Your task to perform on an android device: turn off smart reply in the gmail app Image 0: 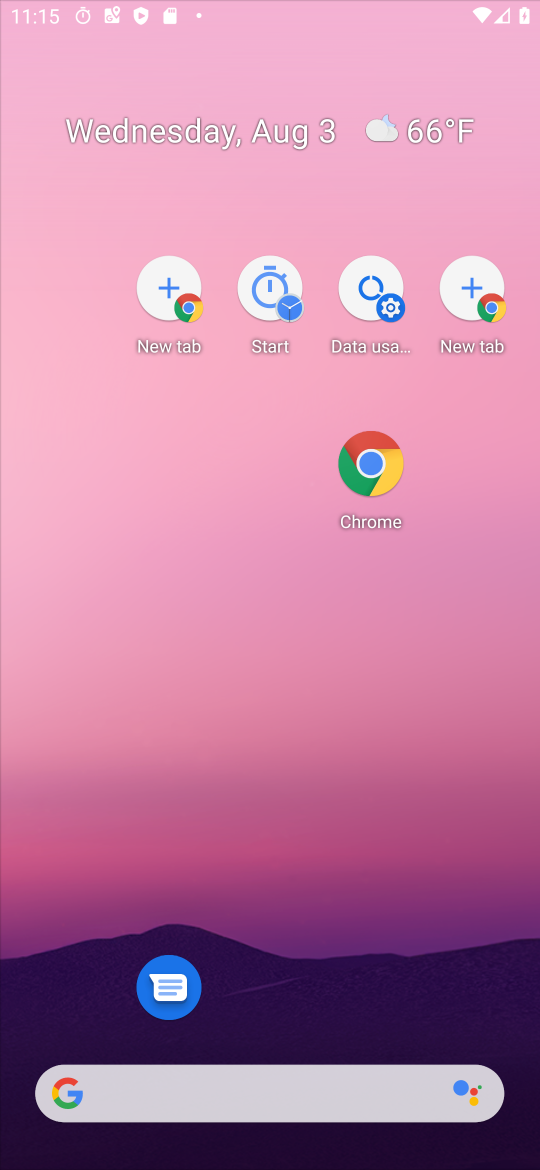
Step 0: press back button
Your task to perform on an android device: turn off smart reply in the gmail app Image 1: 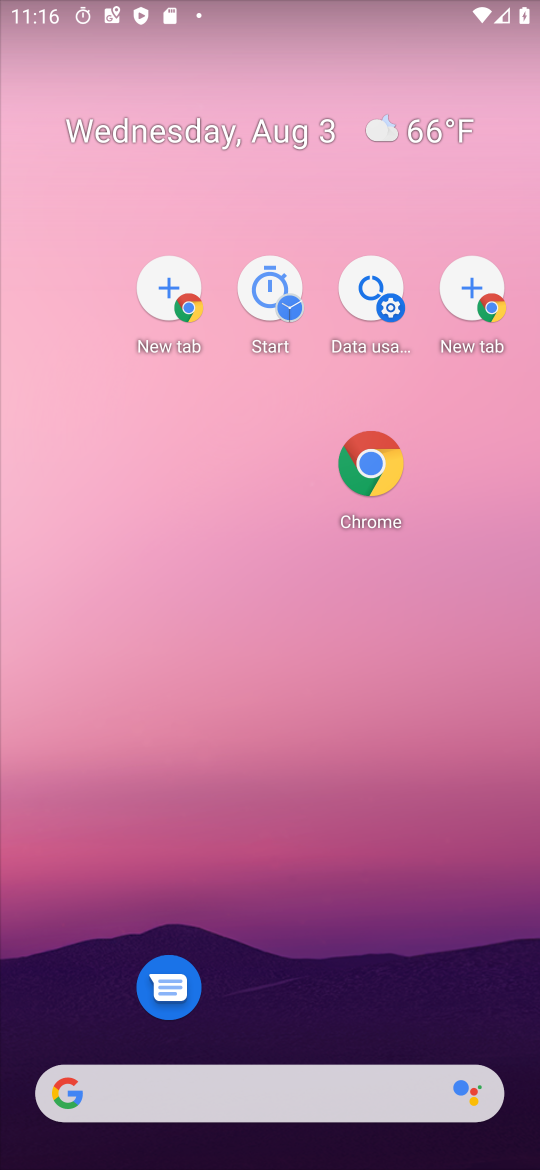
Step 1: drag from (307, 1045) to (126, 320)
Your task to perform on an android device: turn off smart reply in the gmail app Image 2: 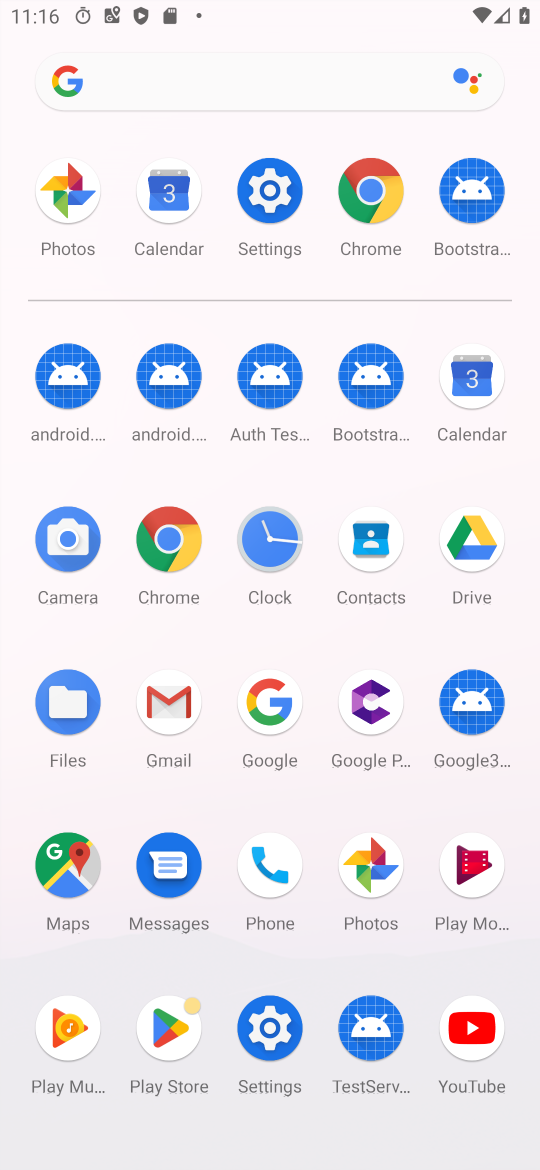
Step 2: click (127, 698)
Your task to perform on an android device: turn off smart reply in the gmail app Image 3: 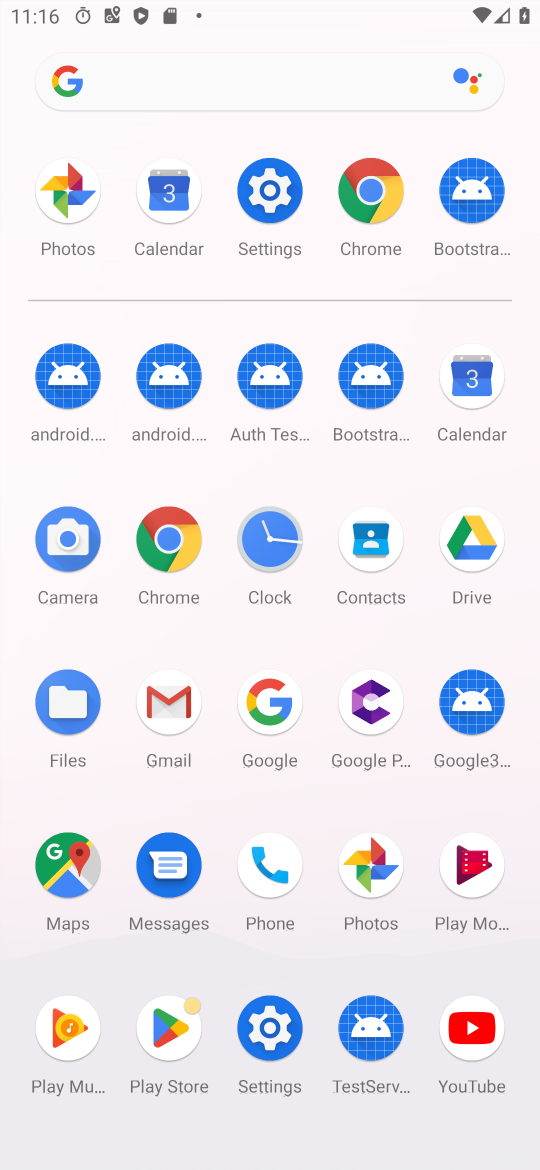
Step 3: click (138, 704)
Your task to perform on an android device: turn off smart reply in the gmail app Image 4: 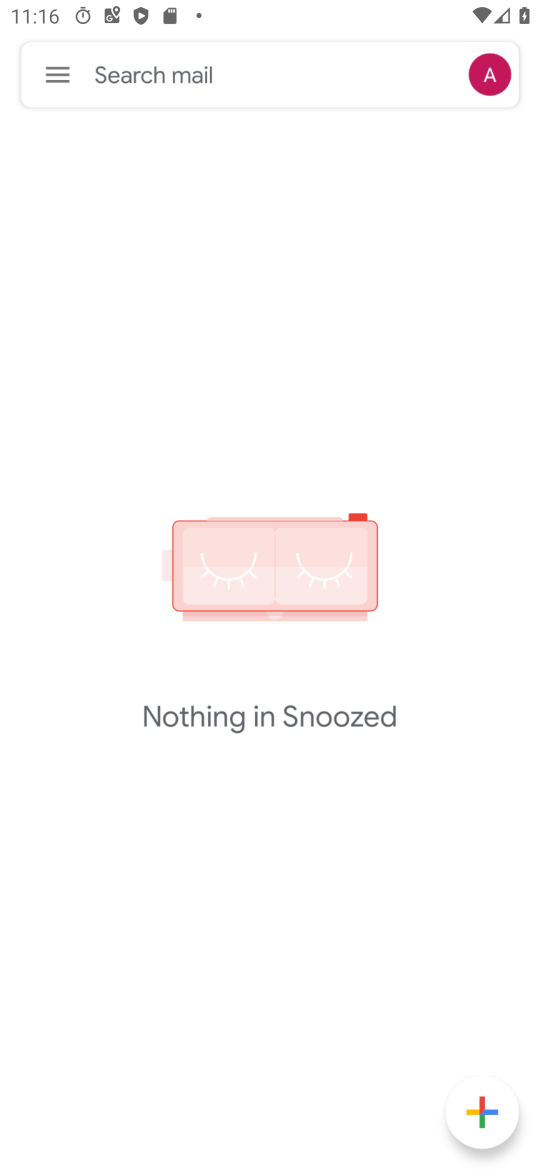
Step 4: click (156, 718)
Your task to perform on an android device: turn off smart reply in the gmail app Image 5: 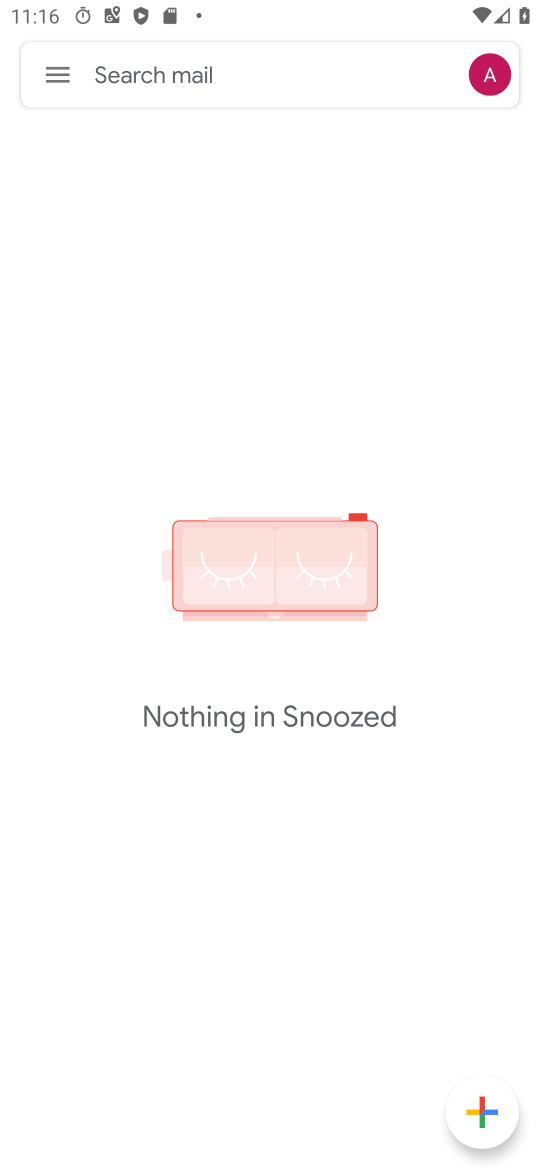
Step 5: click (52, 89)
Your task to perform on an android device: turn off smart reply in the gmail app Image 6: 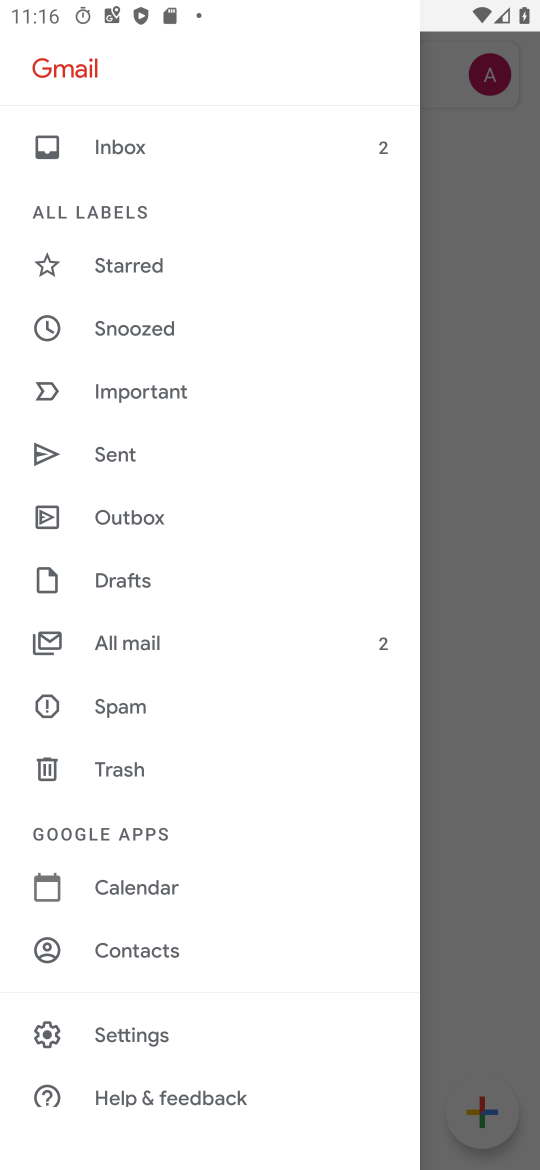
Step 6: click (114, 1031)
Your task to perform on an android device: turn off smart reply in the gmail app Image 7: 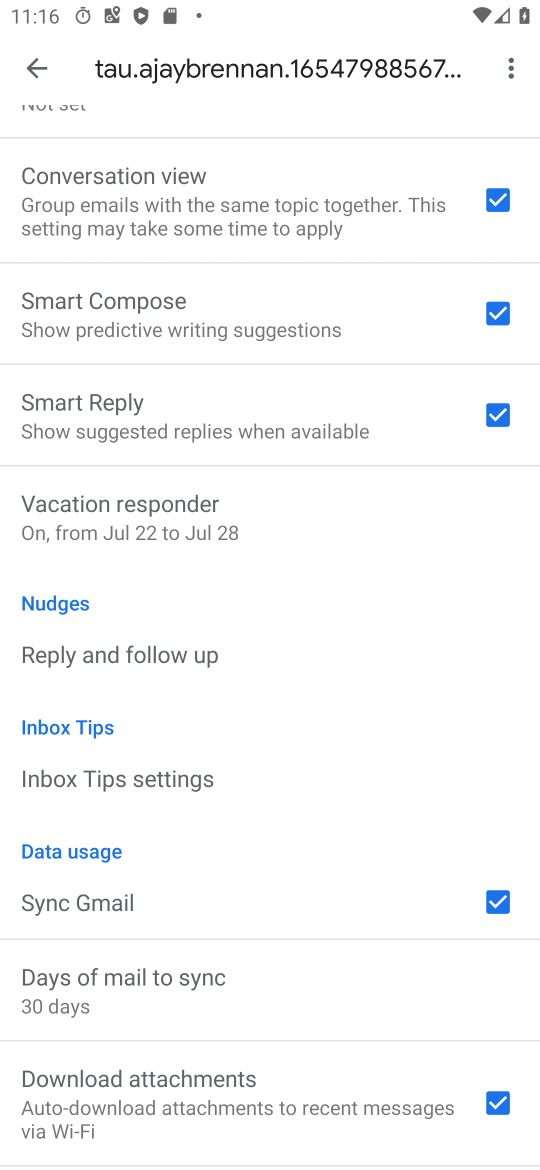
Step 7: click (492, 413)
Your task to perform on an android device: turn off smart reply in the gmail app Image 8: 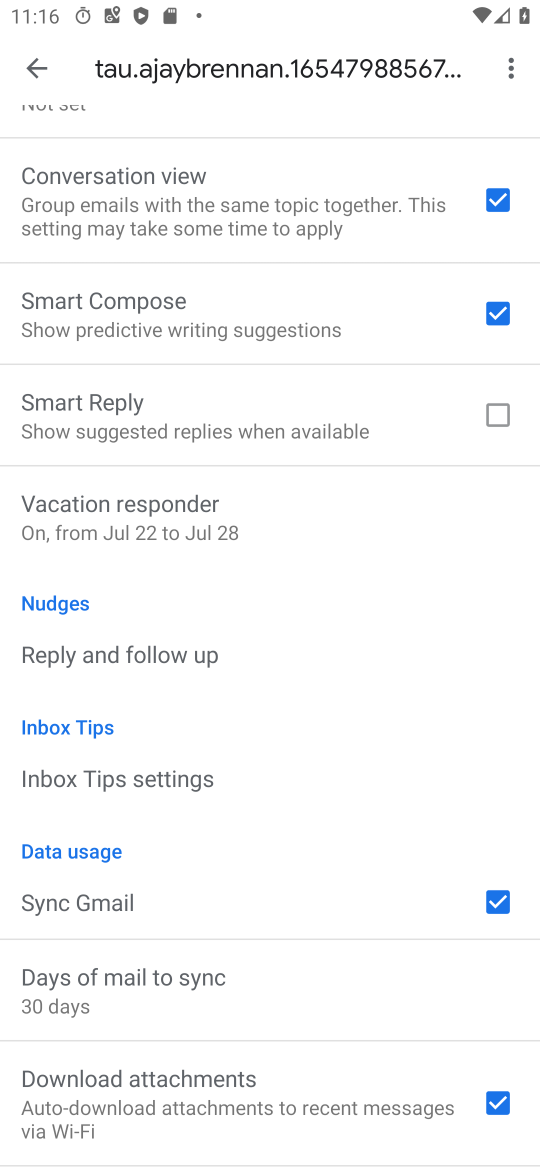
Step 8: task complete